Your task to perform on an android device: Clear the shopping cart on costco. Add "duracell triple a" to the cart on costco, then select checkout. Image 0: 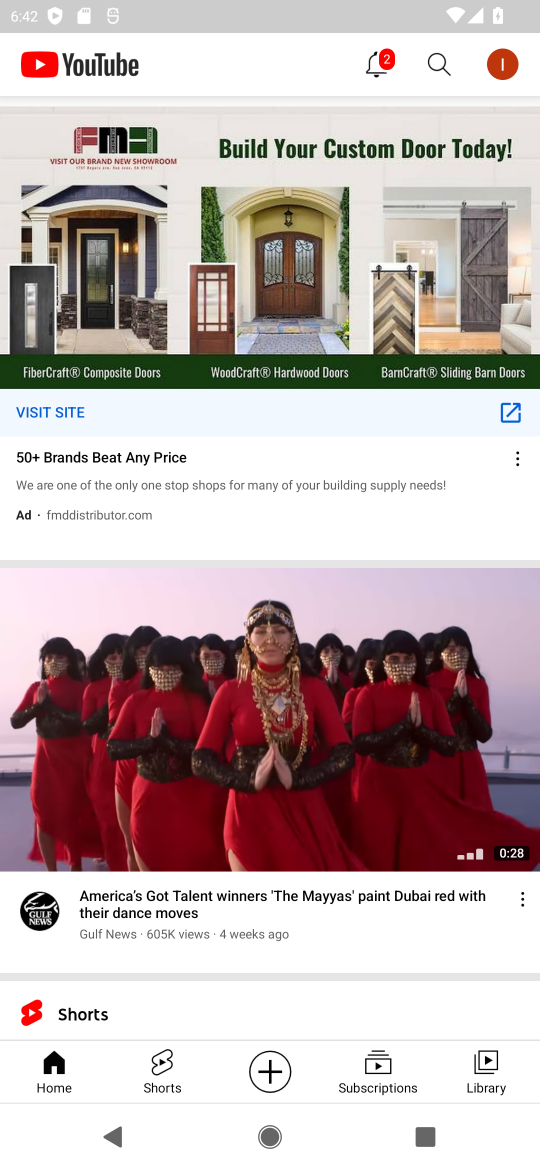
Step 0: press home button
Your task to perform on an android device: Clear the shopping cart on costco. Add "duracell triple a" to the cart on costco, then select checkout. Image 1: 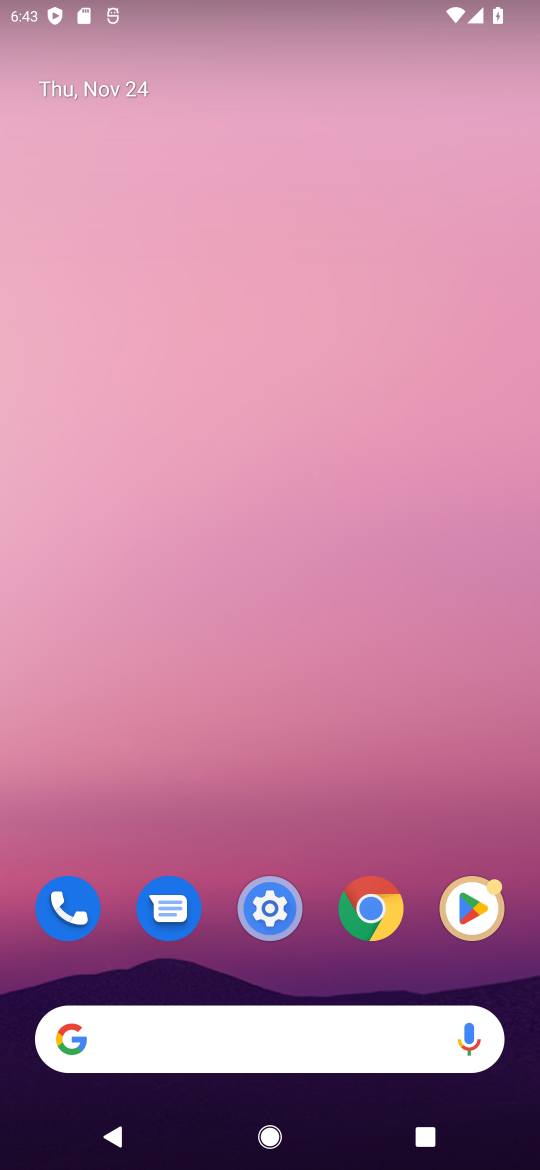
Step 1: click (310, 1034)
Your task to perform on an android device: Clear the shopping cart on costco. Add "duracell triple a" to the cart on costco, then select checkout. Image 2: 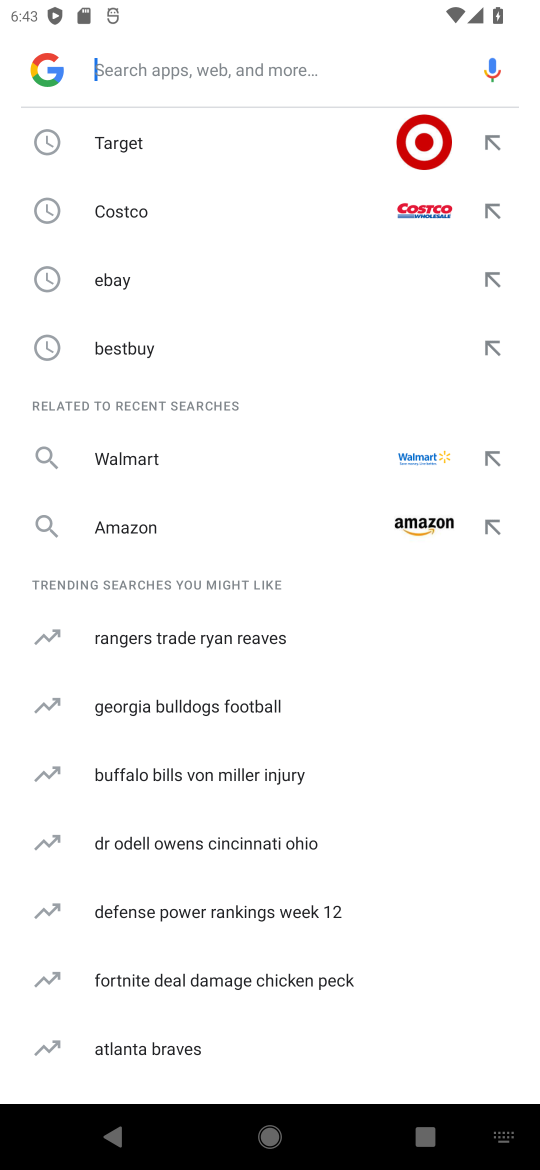
Step 2: click (428, 208)
Your task to perform on an android device: Clear the shopping cart on costco. Add "duracell triple a" to the cart on costco, then select checkout. Image 3: 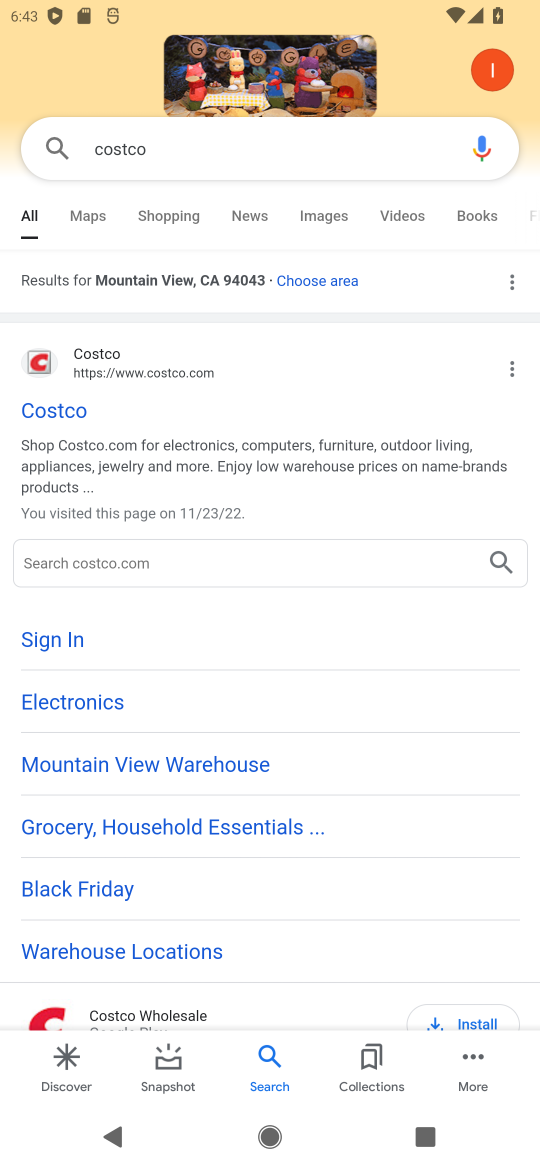
Step 3: click (51, 424)
Your task to perform on an android device: Clear the shopping cart on costco. Add "duracell triple a" to the cart on costco, then select checkout. Image 4: 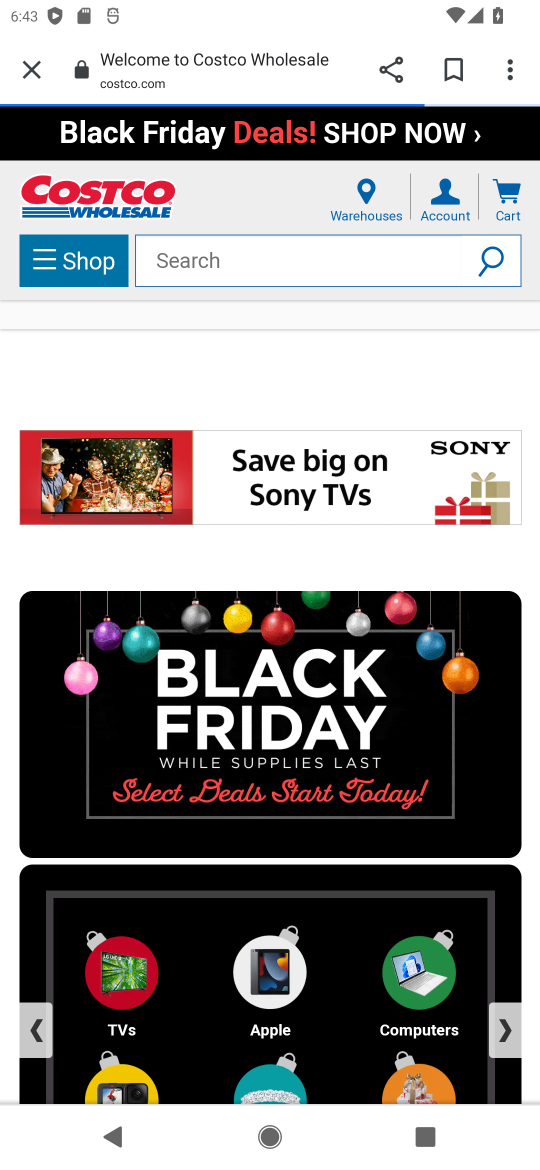
Step 4: click (244, 270)
Your task to perform on an android device: Clear the shopping cart on costco. Add "duracell triple a" to the cart on costco, then select checkout. Image 5: 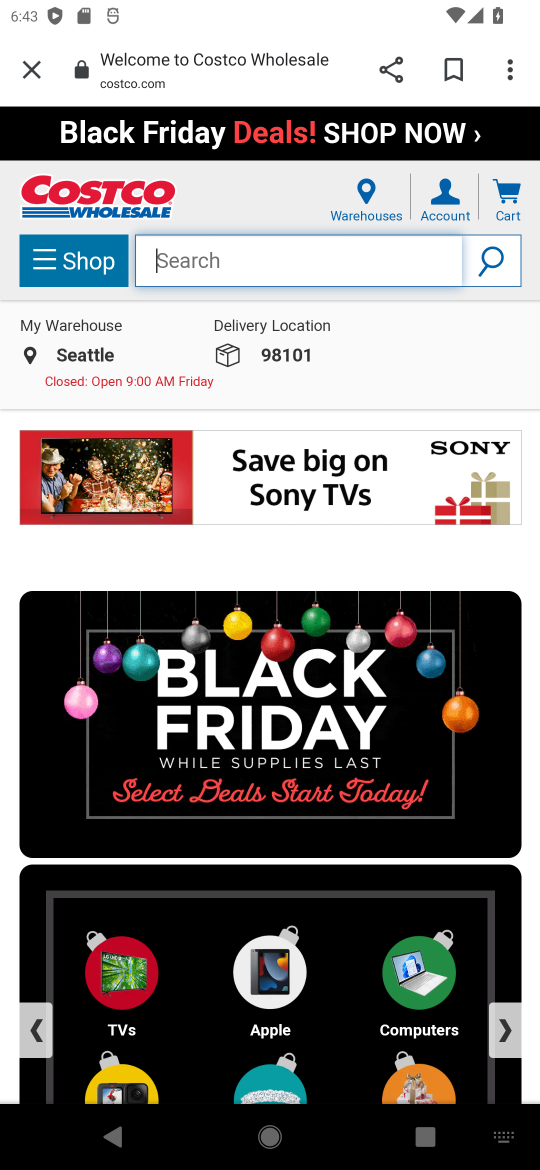
Step 5: type "duracell"
Your task to perform on an android device: Clear the shopping cart on costco. Add "duracell triple a" to the cart on costco, then select checkout. Image 6: 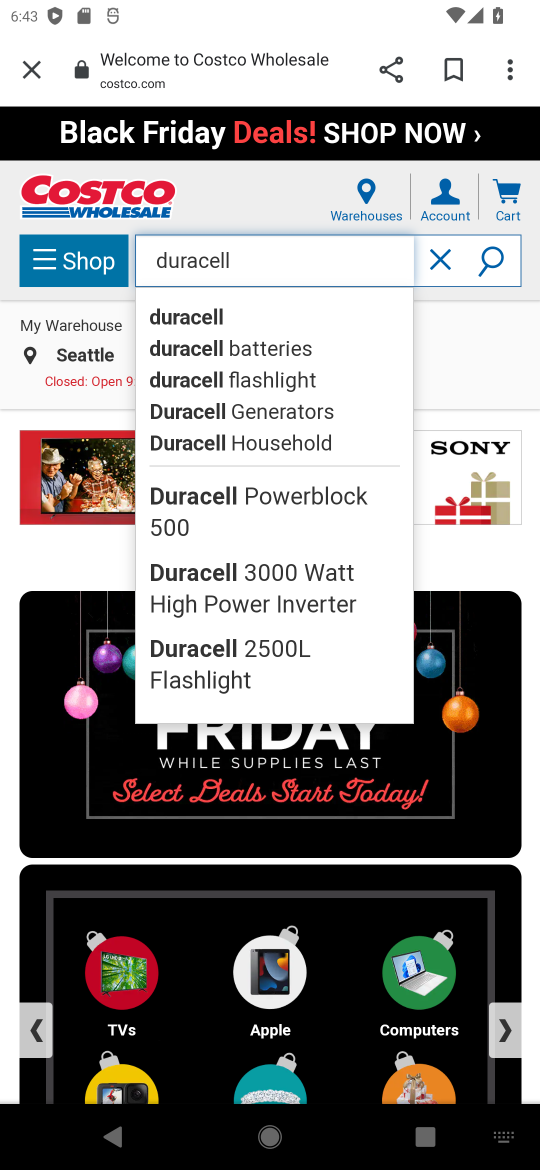
Step 6: click (279, 351)
Your task to perform on an android device: Clear the shopping cart on costco. Add "duracell triple a" to the cart on costco, then select checkout. Image 7: 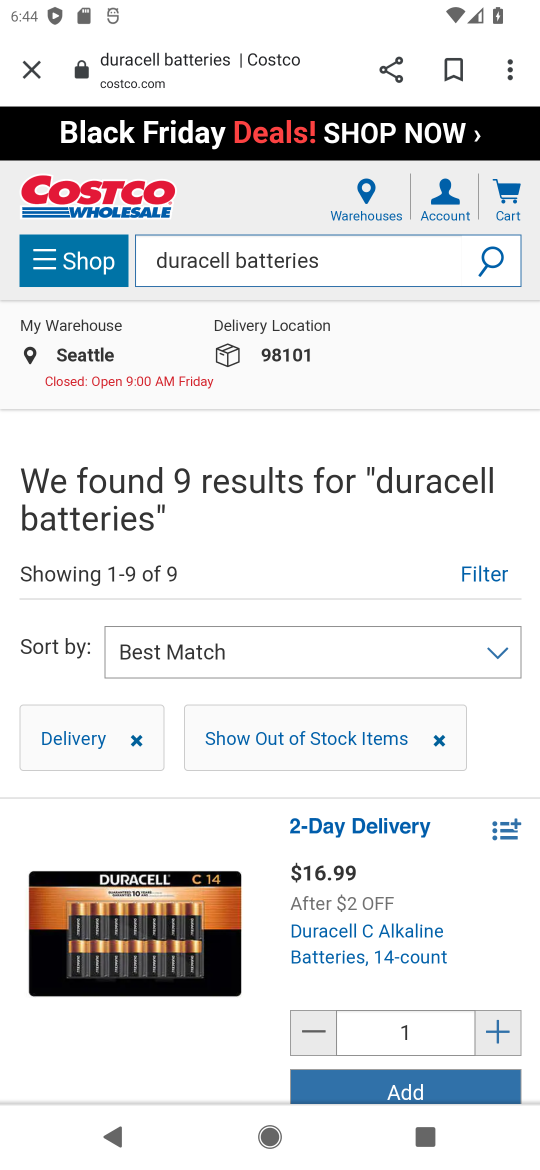
Step 7: click (385, 1084)
Your task to perform on an android device: Clear the shopping cart on costco. Add "duracell triple a" to the cart on costco, then select checkout. Image 8: 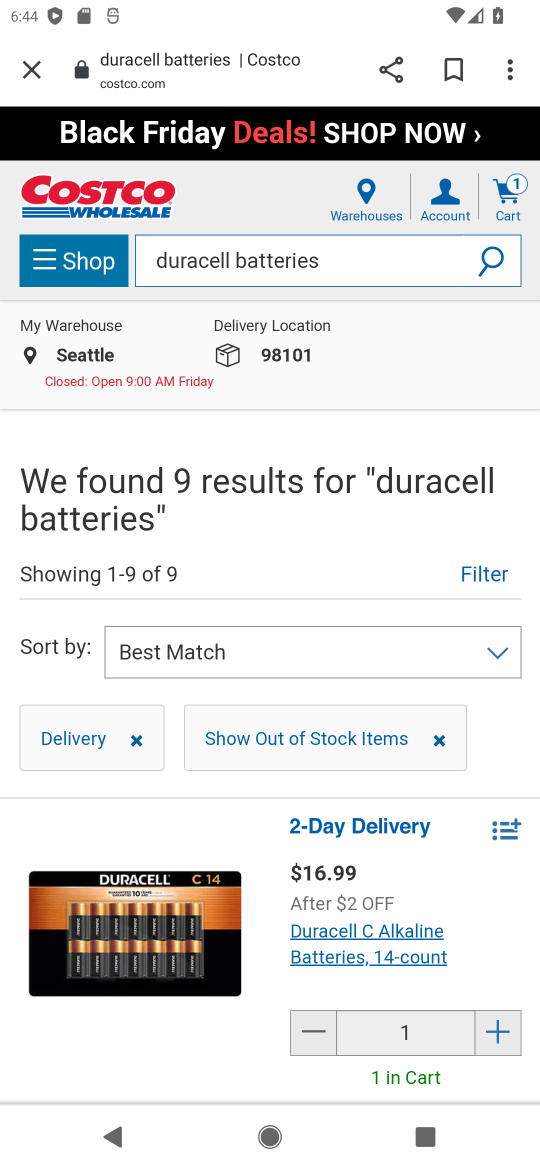
Step 8: task complete